Your task to perform on an android device: turn on priority inbox in the gmail app Image 0: 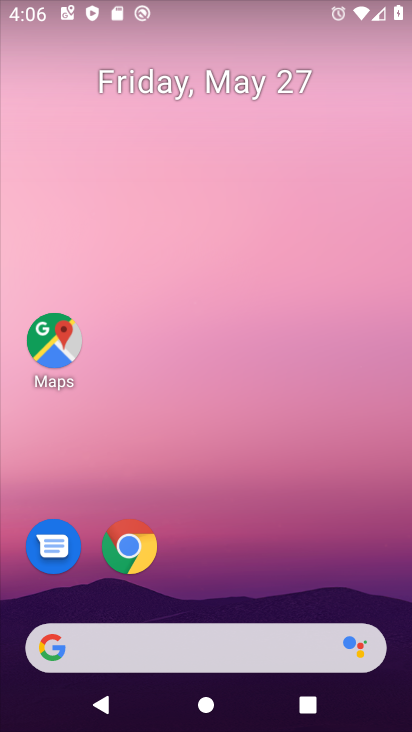
Step 0: press home button
Your task to perform on an android device: turn on priority inbox in the gmail app Image 1: 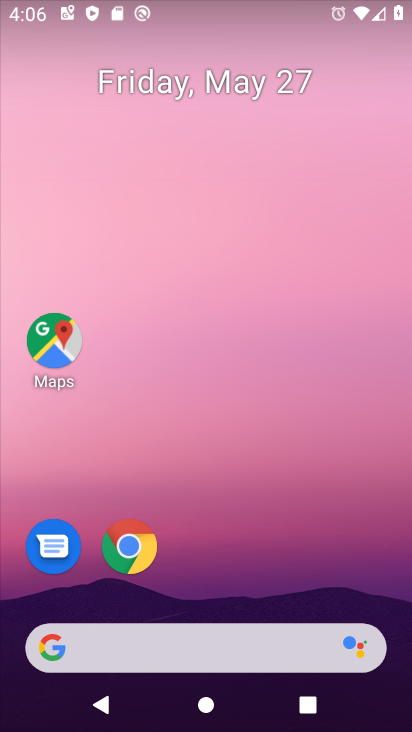
Step 1: drag from (215, 605) to (206, 66)
Your task to perform on an android device: turn on priority inbox in the gmail app Image 2: 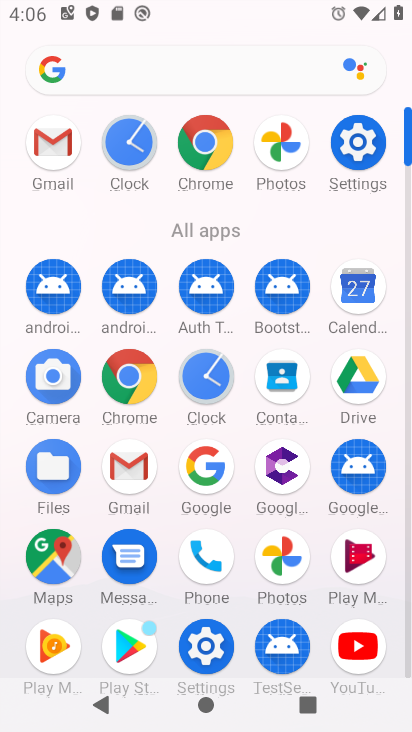
Step 2: click (125, 454)
Your task to perform on an android device: turn on priority inbox in the gmail app Image 3: 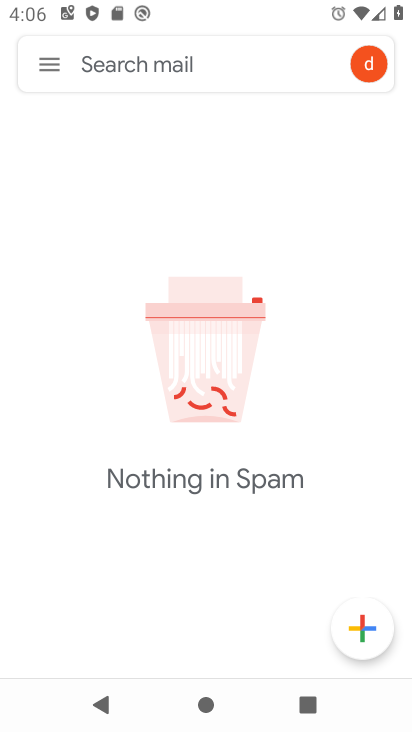
Step 3: click (44, 65)
Your task to perform on an android device: turn on priority inbox in the gmail app Image 4: 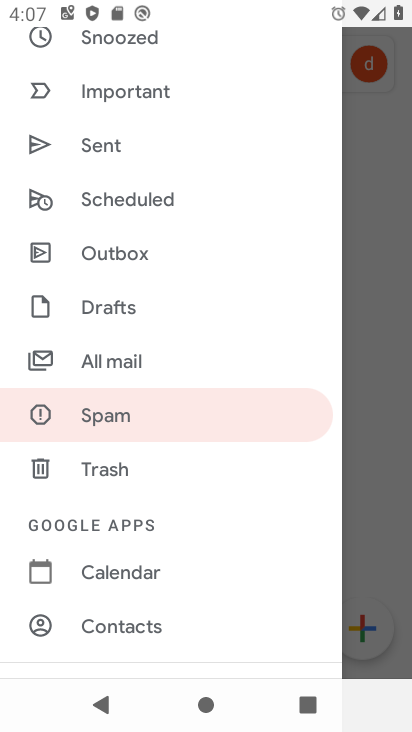
Step 4: drag from (151, 591) to (160, 74)
Your task to perform on an android device: turn on priority inbox in the gmail app Image 5: 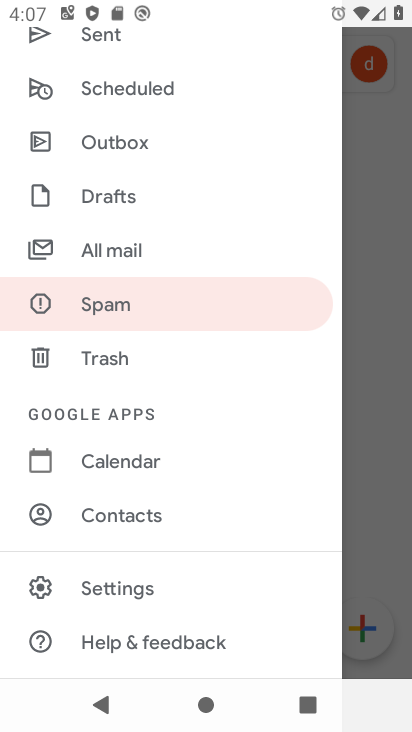
Step 5: click (160, 576)
Your task to perform on an android device: turn on priority inbox in the gmail app Image 6: 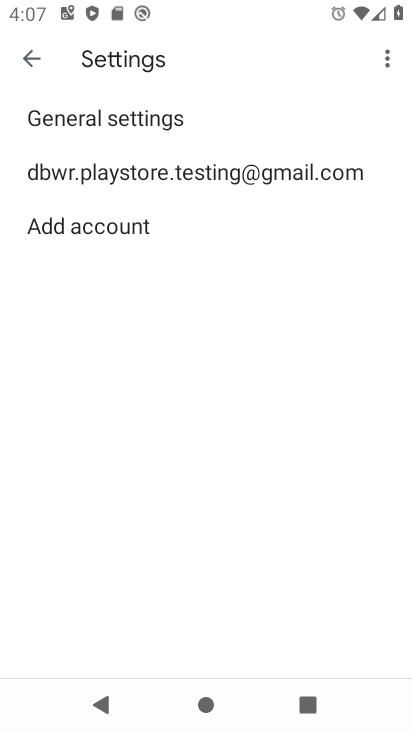
Step 6: click (194, 172)
Your task to perform on an android device: turn on priority inbox in the gmail app Image 7: 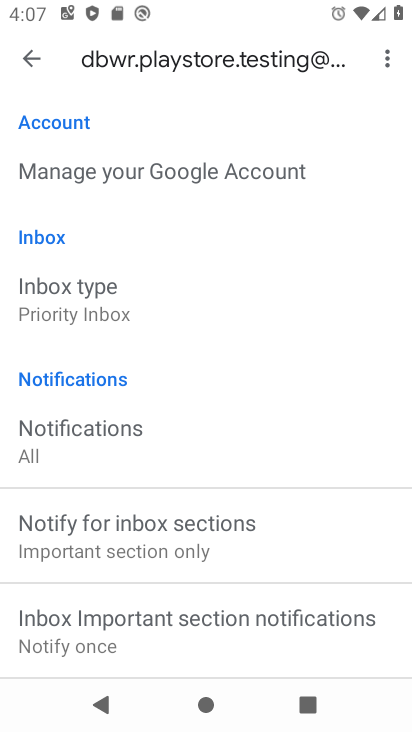
Step 7: click (144, 299)
Your task to perform on an android device: turn on priority inbox in the gmail app Image 8: 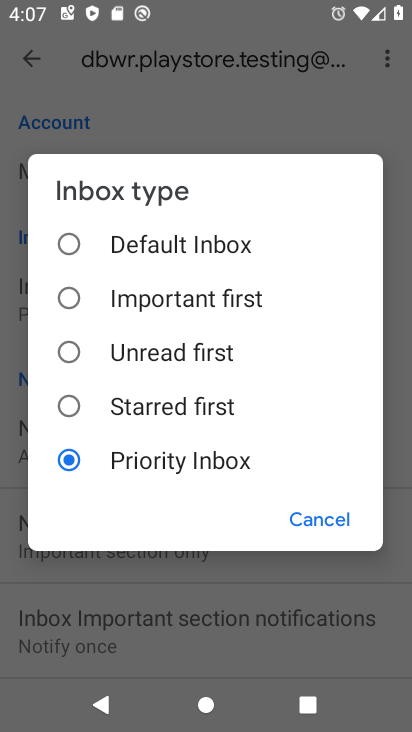
Step 8: task complete